Your task to perform on an android device: Go to Amazon Image 0: 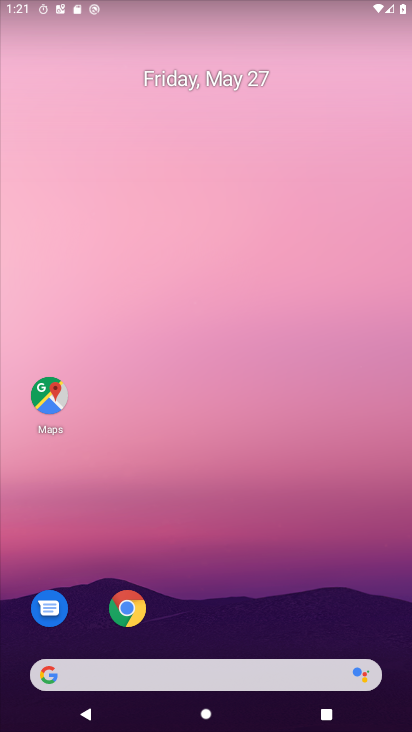
Step 0: click (134, 610)
Your task to perform on an android device: Go to Amazon Image 1: 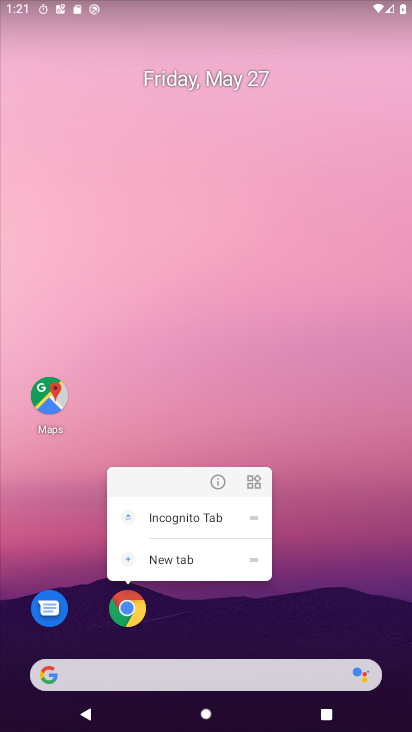
Step 1: click (124, 603)
Your task to perform on an android device: Go to Amazon Image 2: 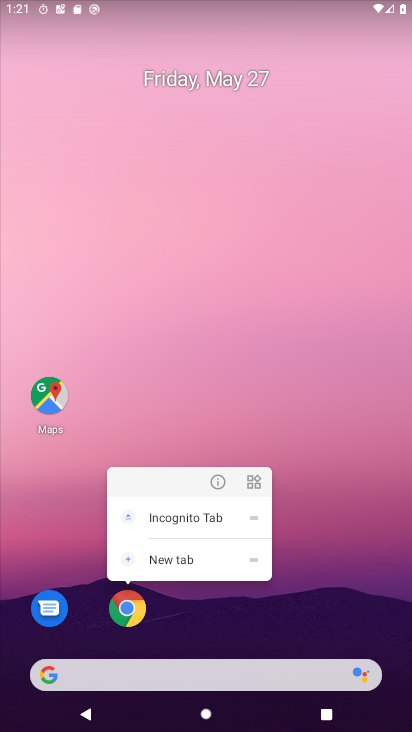
Step 2: click (124, 609)
Your task to perform on an android device: Go to Amazon Image 3: 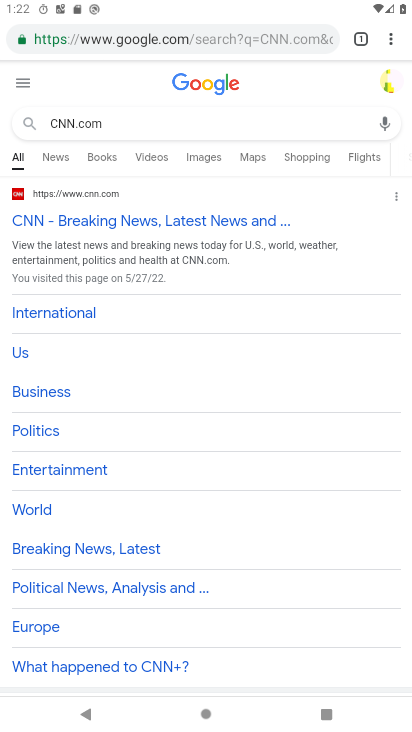
Step 3: click (334, 36)
Your task to perform on an android device: Go to Amazon Image 4: 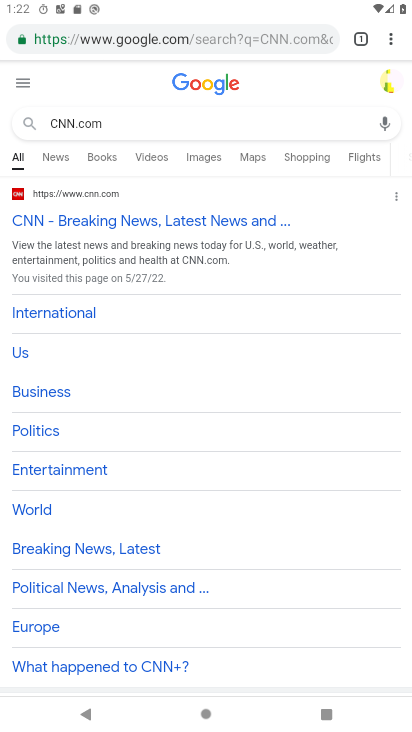
Step 4: click (331, 37)
Your task to perform on an android device: Go to Amazon Image 5: 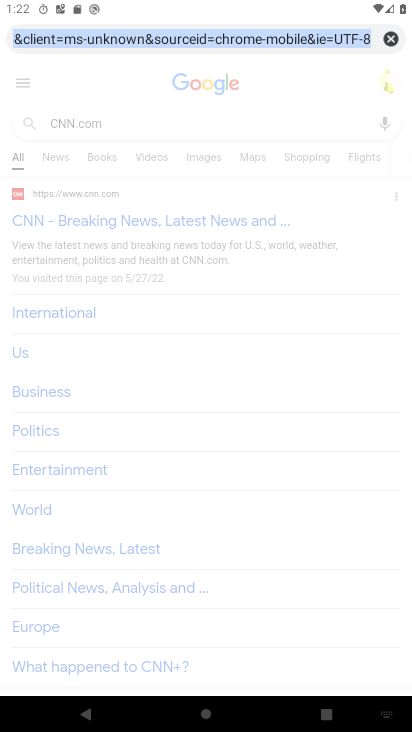
Step 5: click (387, 39)
Your task to perform on an android device: Go to Amazon Image 6: 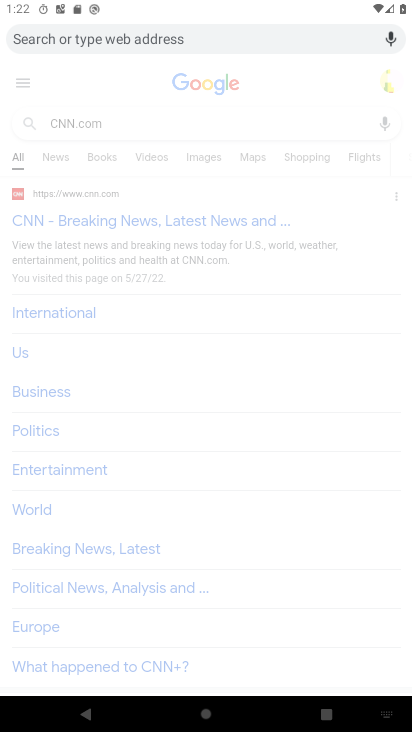
Step 6: type "Amazon"
Your task to perform on an android device: Go to Amazon Image 7: 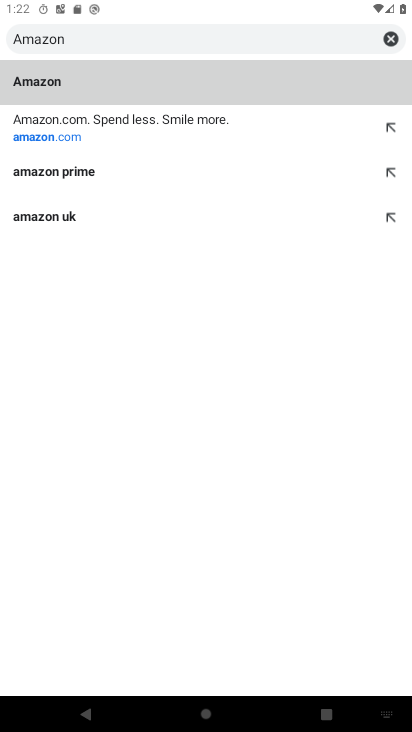
Step 7: click (41, 94)
Your task to perform on an android device: Go to Amazon Image 8: 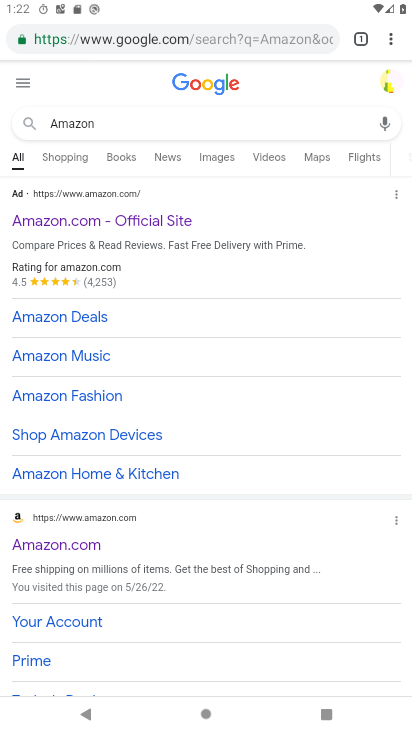
Step 8: task complete